Your task to perform on an android device: Open Youtube and go to "Your channel" Image 0: 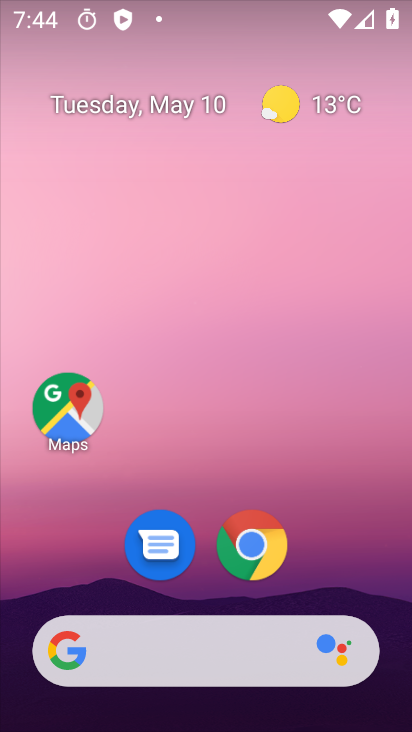
Step 0: press home button
Your task to perform on an android device: Open Youtube and go to "Your channel" Image 1: 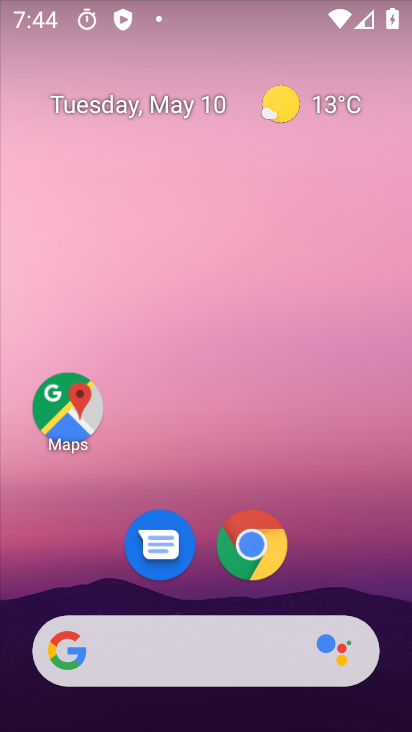
Step 1: drag from (208, 590) to (248, 135)
Your task to perform on an android device: Open Youtube and go to "Your channel" Image 2: 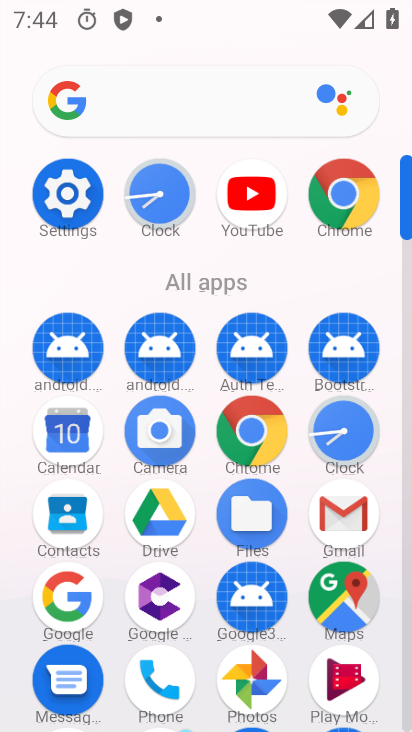
Step 2: click (246, 185)
Your task to perform on an android device: Open Youtube and go to "Your channel" Image 3: 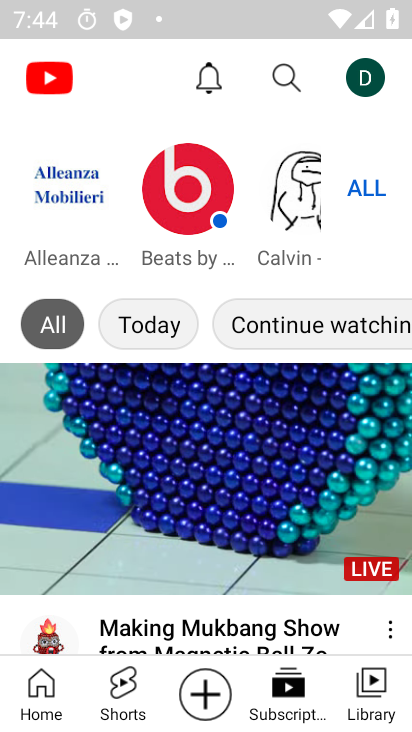
Step 3: click (368, 679)
Your task to perform on an android device: Open Youtube and go to "Your channel" Image 4: 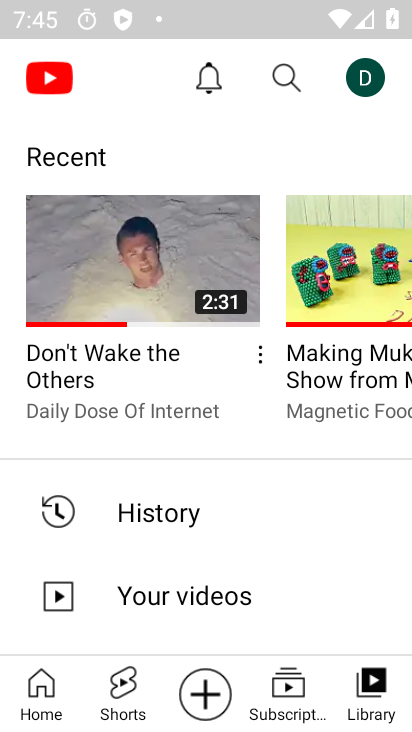
Step 4: click (366, 77)
Your task to perform on an android device: Open Youtube and go to "Your channel" Image 5: 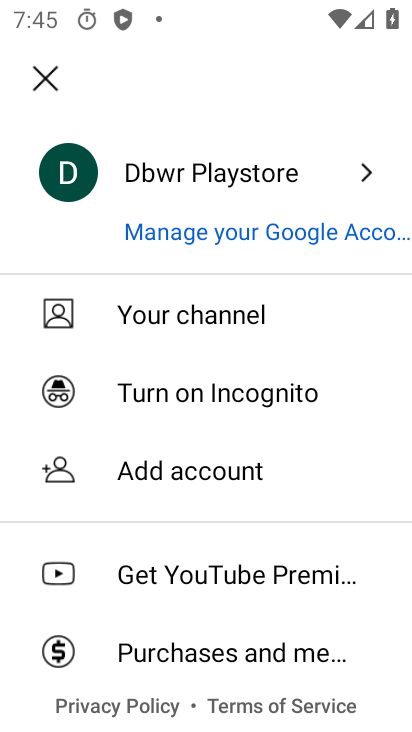
Step 5: click (107, 309)
Your task to perform on an android device: Open Youtube and go to "Your channel" Image 6: 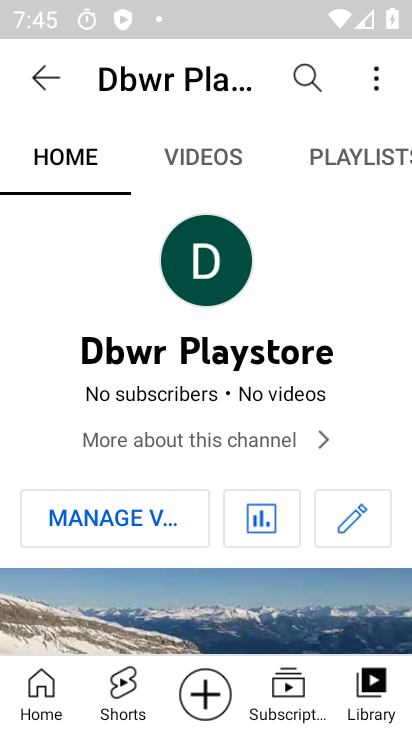
Step 6: task complete